Your task to perform on an android device: set an alarm Image 0: 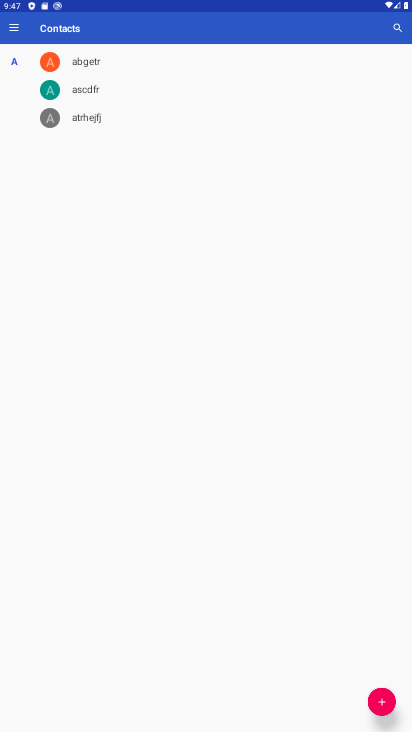
Step 0: press home button
Your task to perform on an android device: set an alarm Image 1: 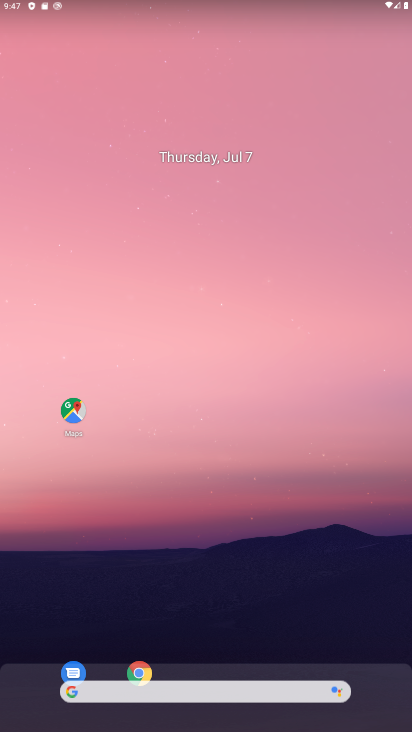
Step 1: drag from (194, 236) to (287, 10)
Your task to perform on an android device: set an alarm Image 2: 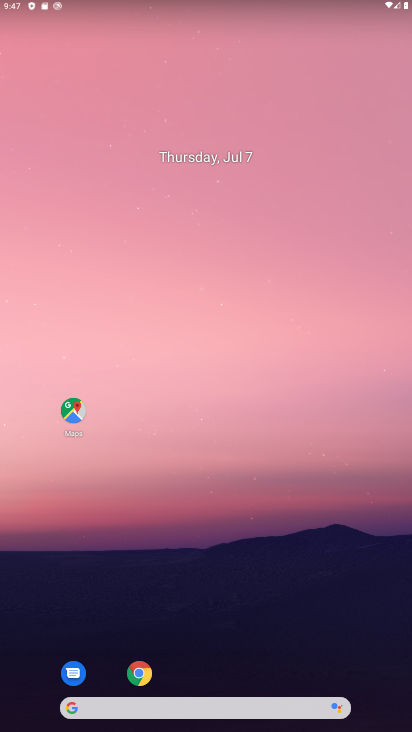
Step 2: click (260, 17)
Your task to perform on an android device: set an alarm Image 3: 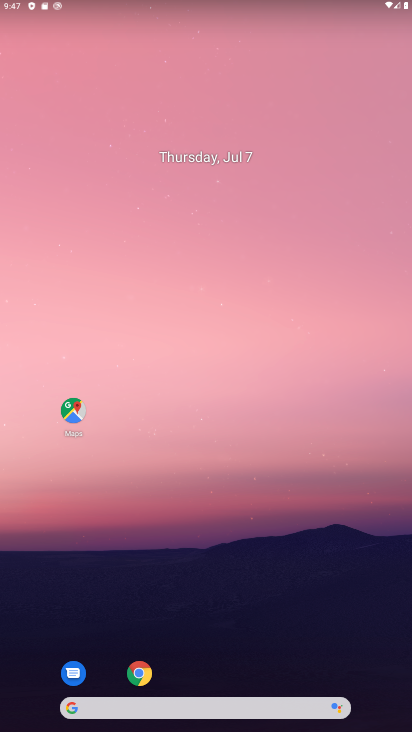
Step 3: drag from (176, 668) to (192, 33)
Your task to perform on an android device: set an alarm Image 4: 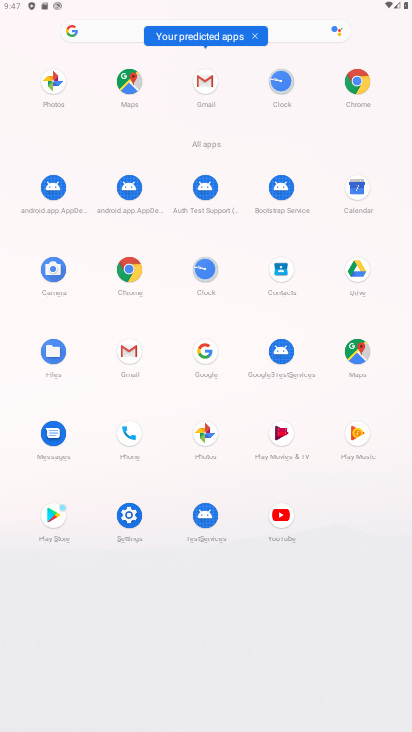
Step 4: click (206, 275)
Your task to perform on an android device: set an alarm Image 5: 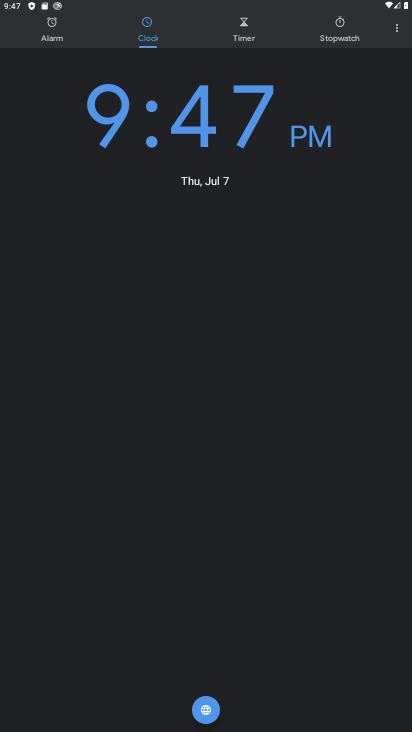
Step 5: click (56, 38)
Your task to perform on an android device: set an alarm Image 6: 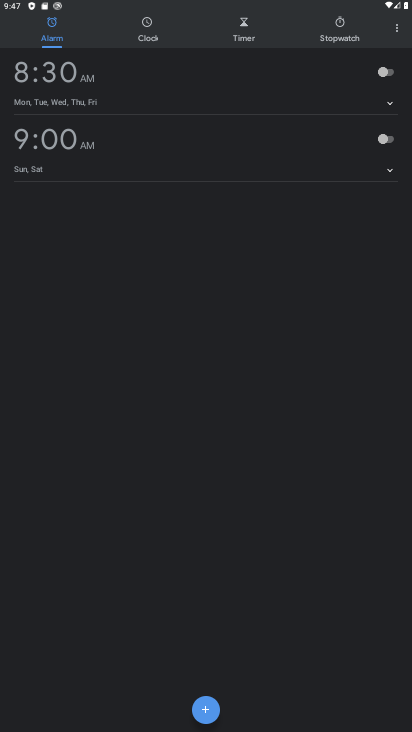
Step 6: click (54, 37)
Your task to perform on an android device: set an alarm Image 7: 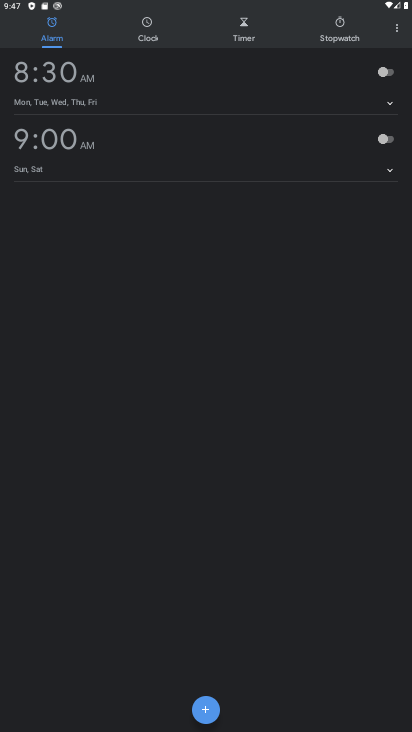
Step 7: click (391, 73)
Your task to perform on an android device: set an alarm Image 8: 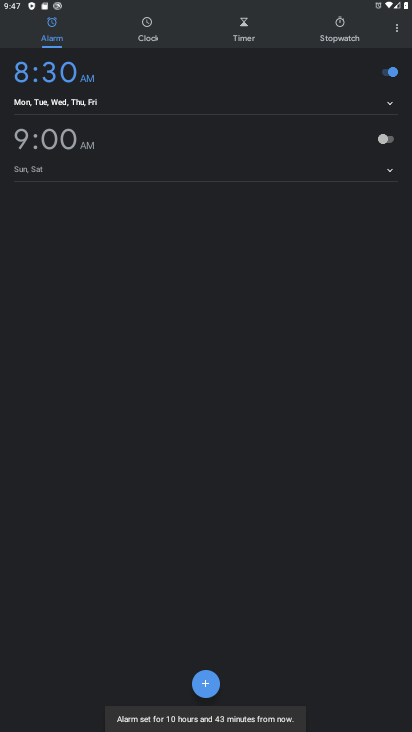
Step 8: click (391, 102)
Your task to perform on an android device: set an alarm Image 9: 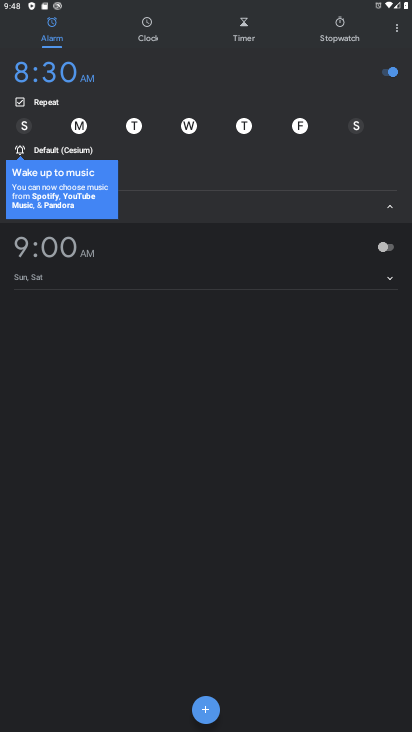
Step 9: task complete